Your task to perform on an android device: Open Google Maps Image 0: 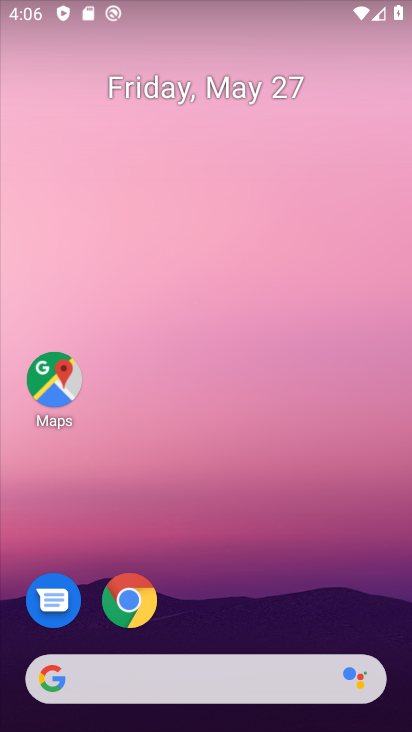
Step 0: press home button
Your task to perform on an android device: Open Google Maps Image 1: 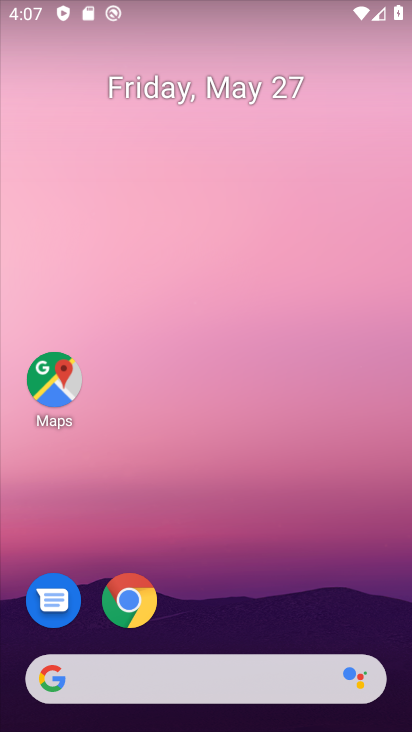
Step 1: click (47, 396)
Your task to perform on an android device: Open Google Maps Image 2: 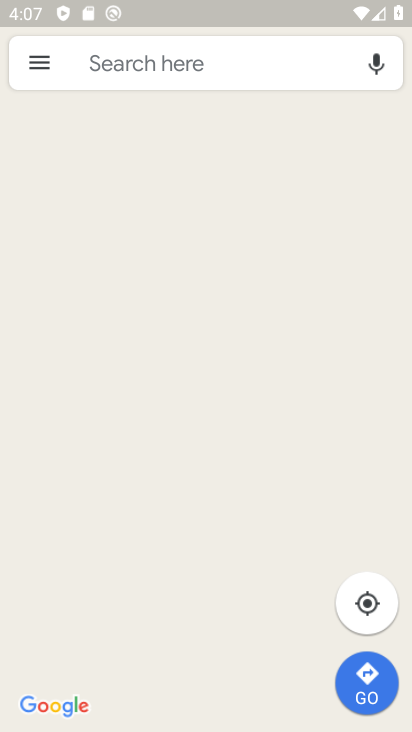
Step 2: click (294, 417)
Your task to perform on an android device: Open Google Maps Image 3: 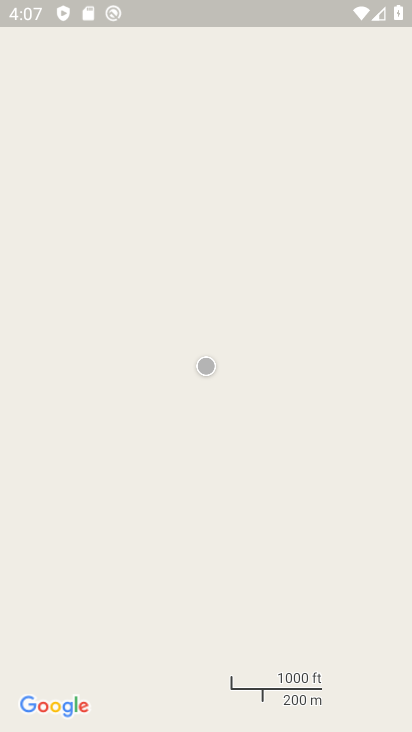
Step 3: click (317, 542)
Your task to perform on an android device: Open Google Maps Image 4: 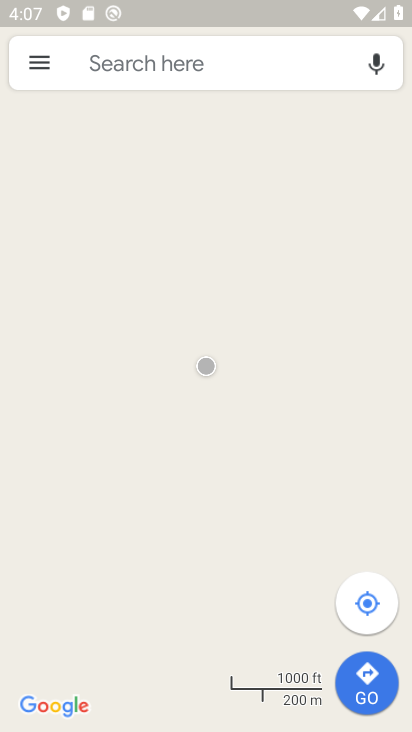
Step 4: click (367, 608)
Your task to perform on an android device: Open Google Maps Image 5: 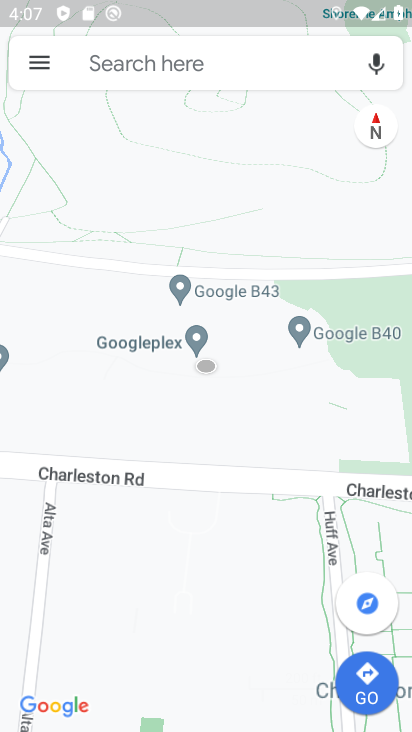
Step 5: task complete